Your task to perform on an android device: Add razer blade to the cart on walmart Image 0: 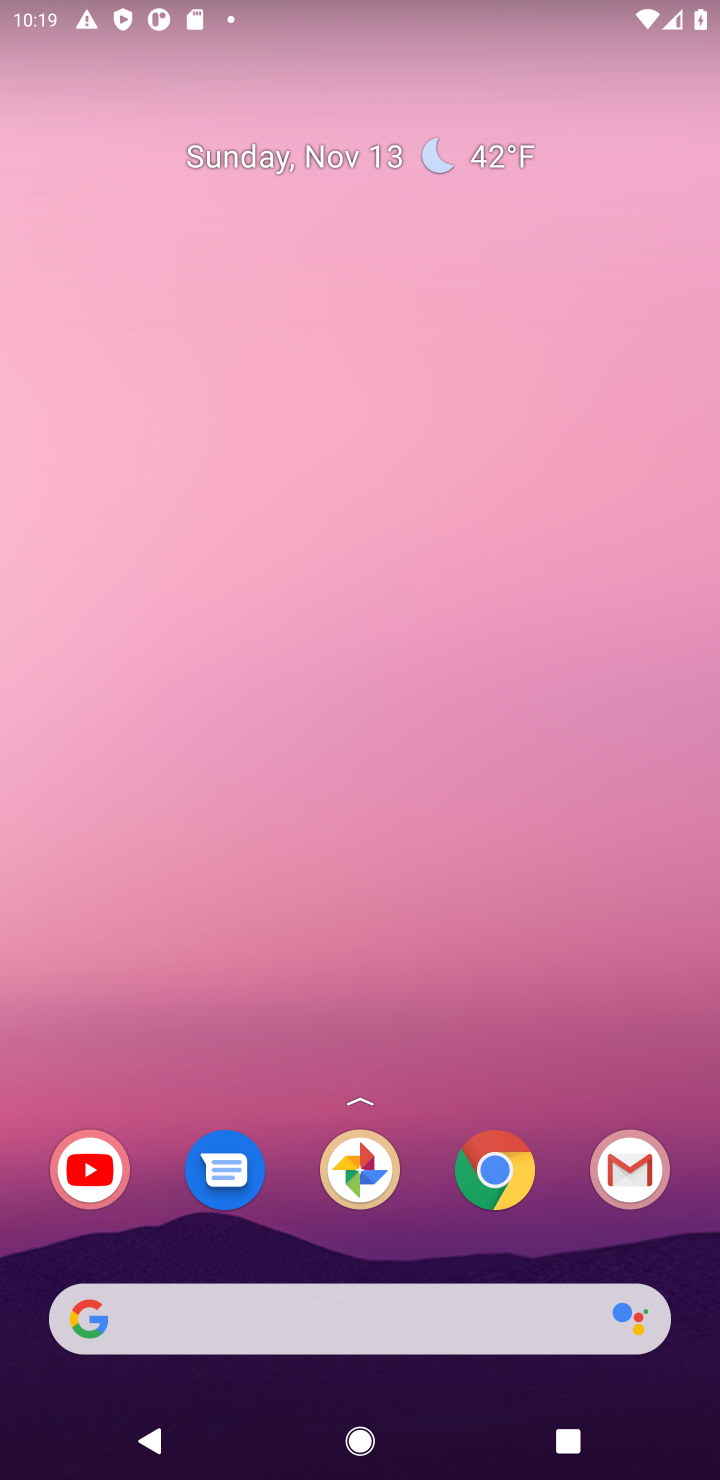
Step 0: drag from (486, 1007) to (642, 7)
Your task to perform on an android device: Add razer blade to the cart on walmart Image 1: 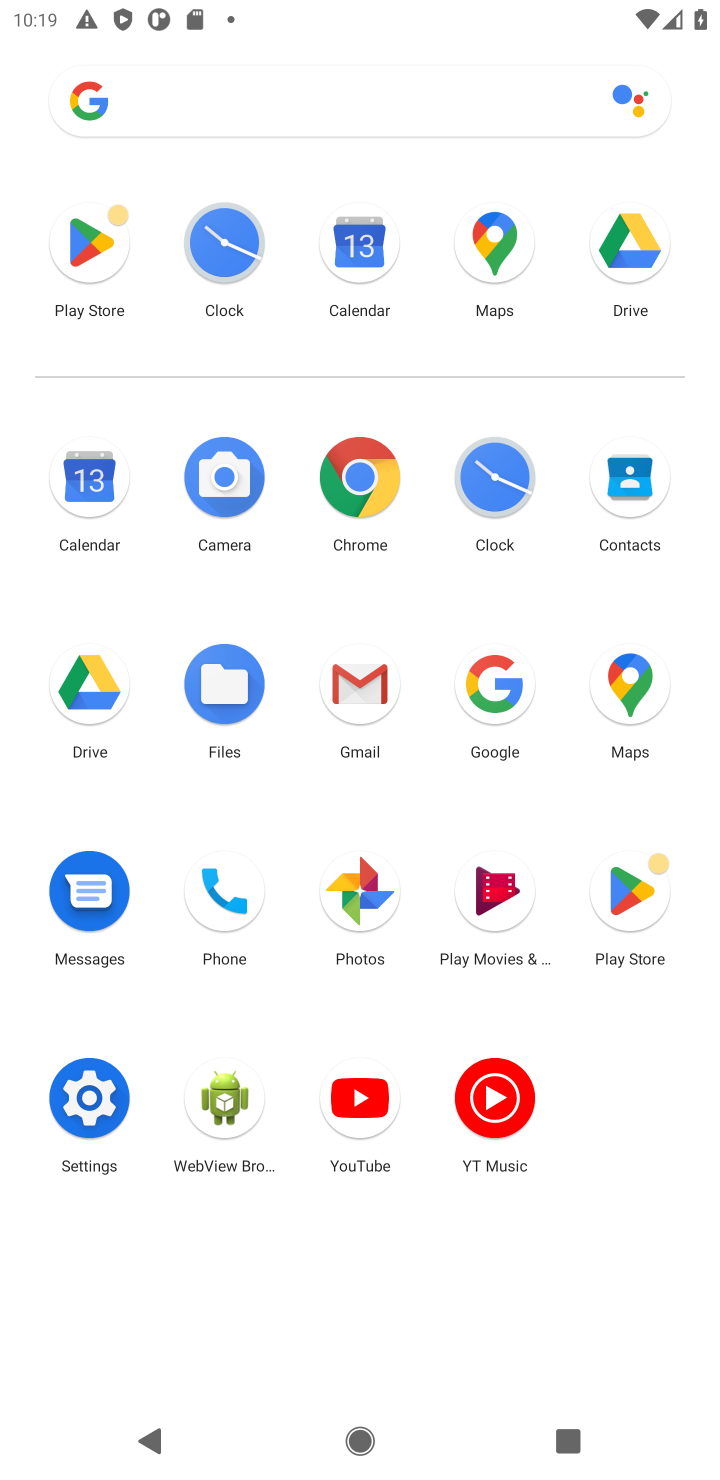
Step 1: click (373, 486)
Your task to perform on an android device: Add razer blade to the cart on walmart Image 2: 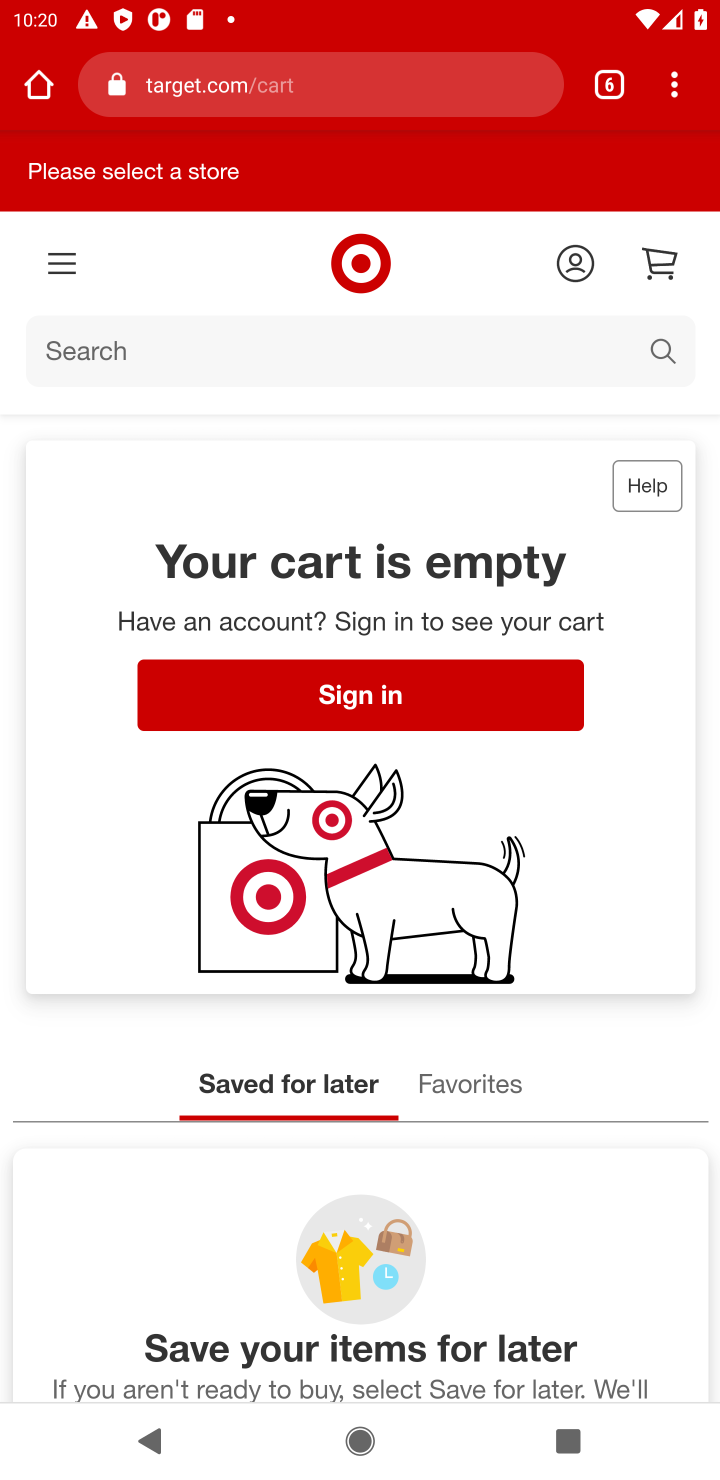
Step 2: click (260, 82)
Your task to perform on an android device: Add razer blade to the cart on walmart Image 3: 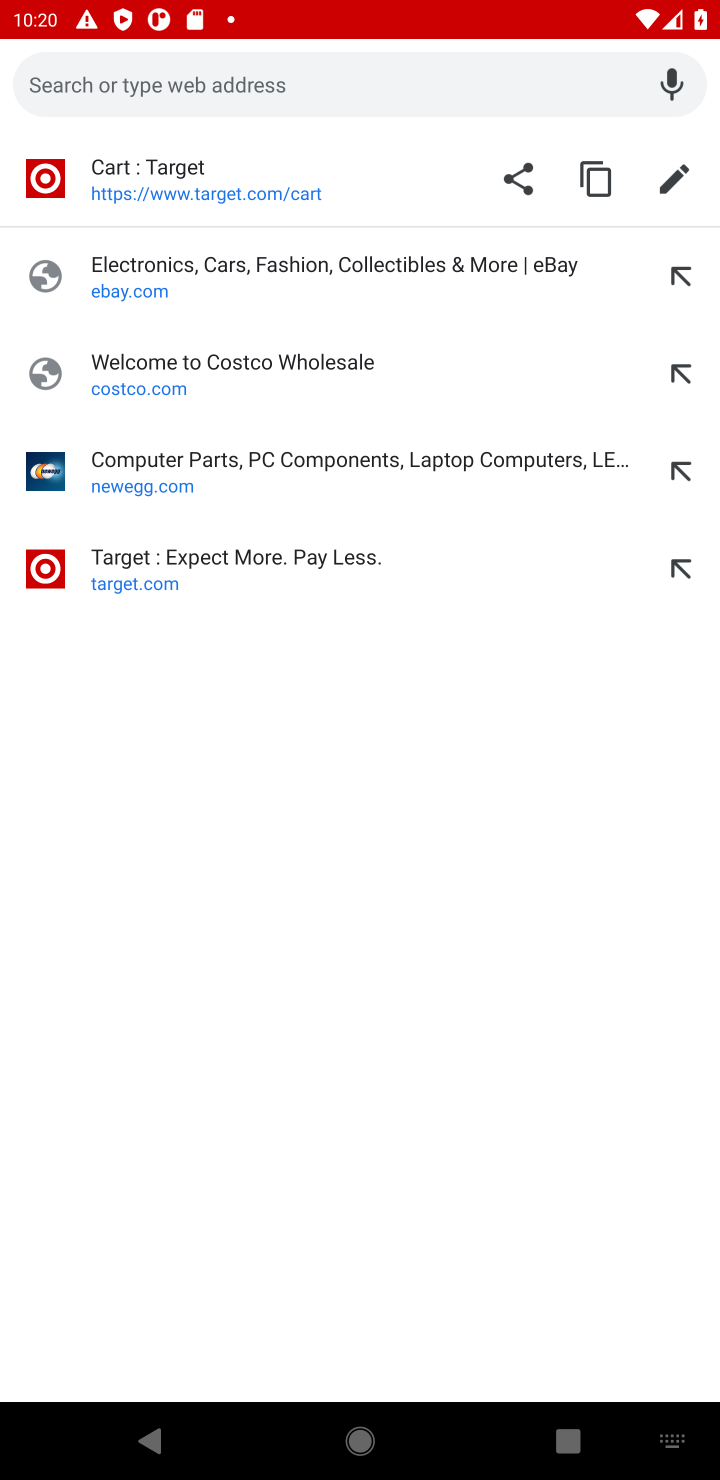
Step 3: type "walmart"
Your task to perform on an android device: Add razer blade to the cart on walmart Image 4: 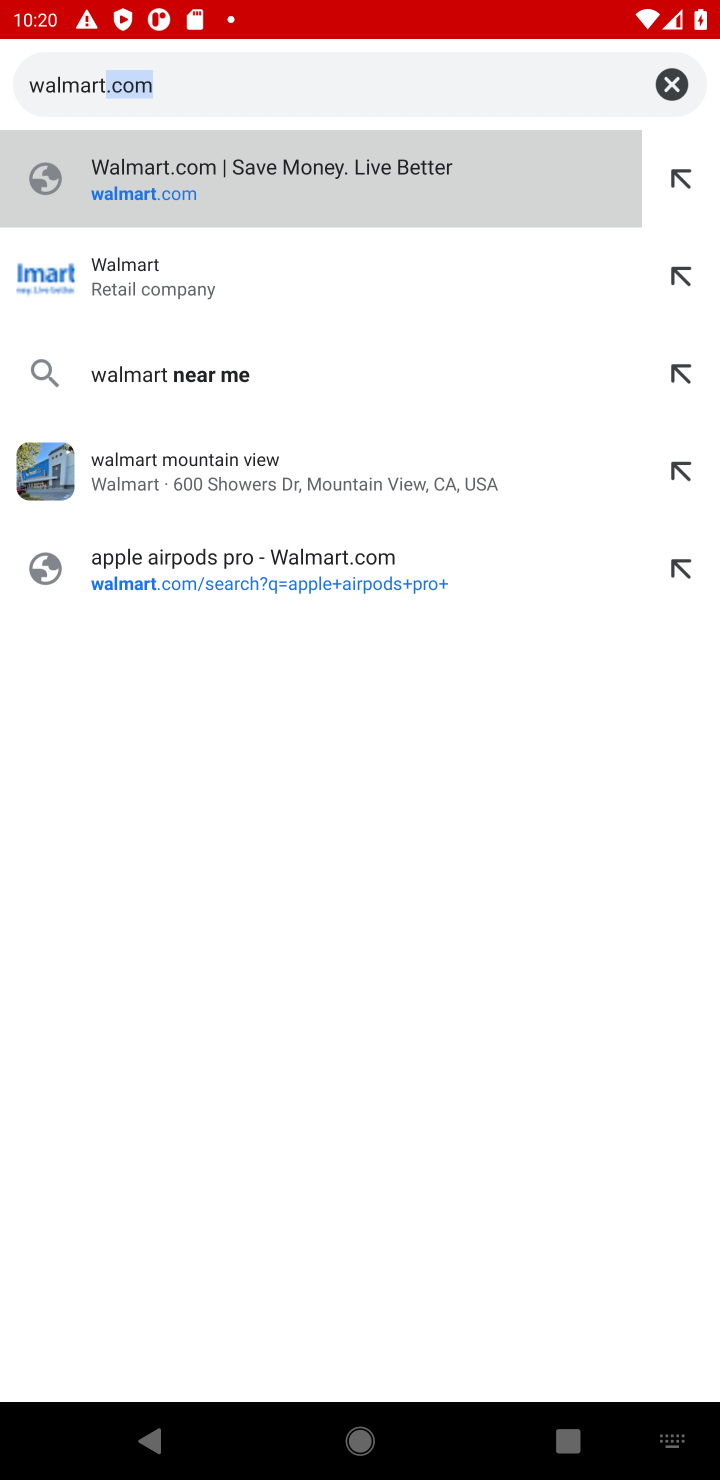
Step 4: press enter
Your task to perform on an android device: Add razer blade to the cart on walmart Image 5: 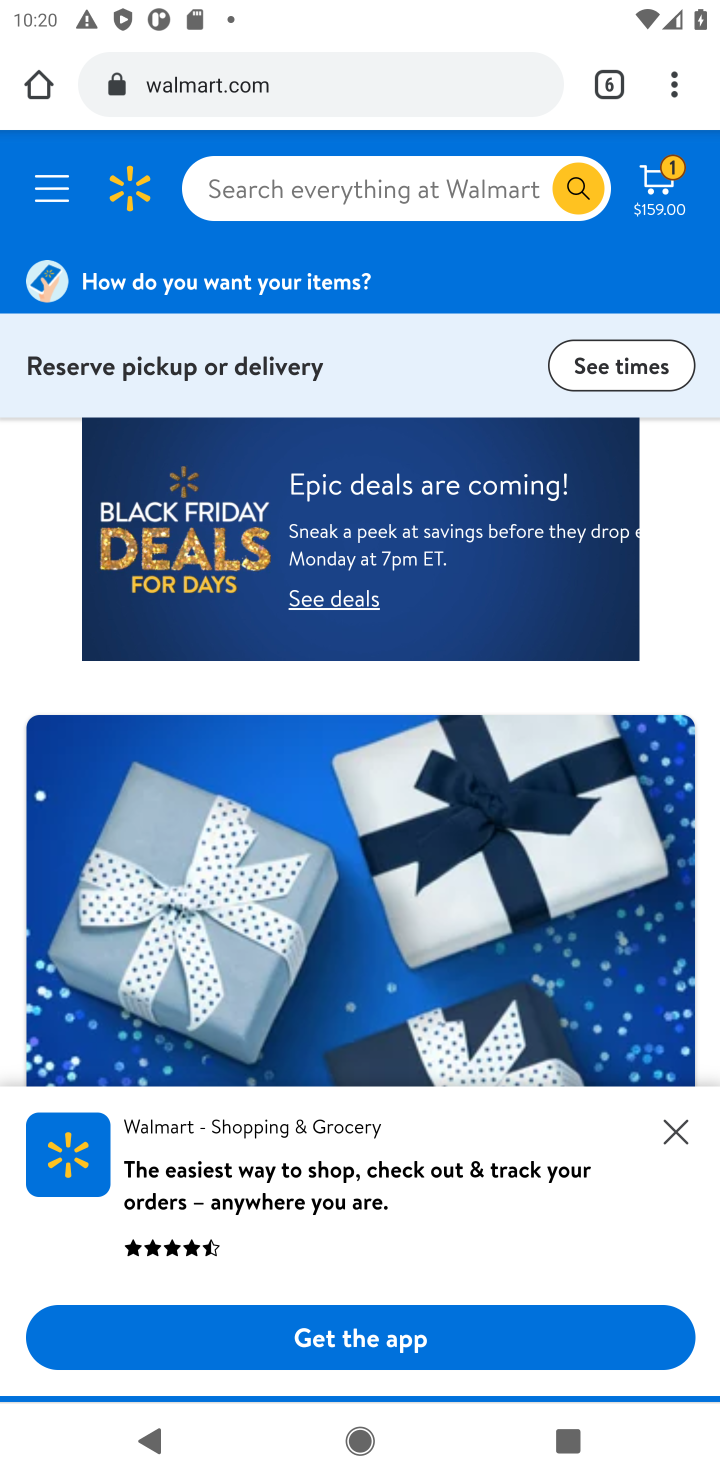
Step 5: click (344, 201)
Your task to perform on an android device: Add razer blade to the cart on walmart Image 6: 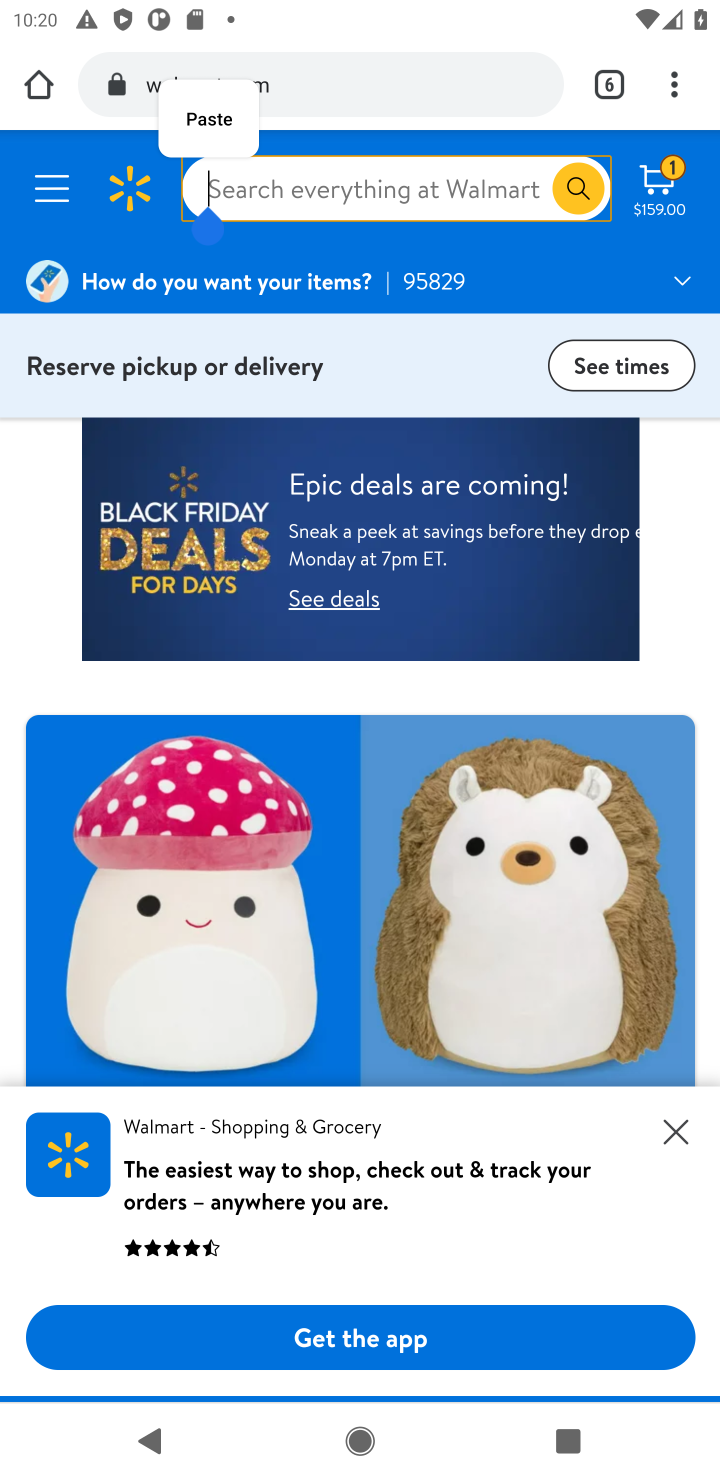
Step 6: click (218, 114)
Your task to perform on an android device: Add razer blade to the cart on walmart Image 7: 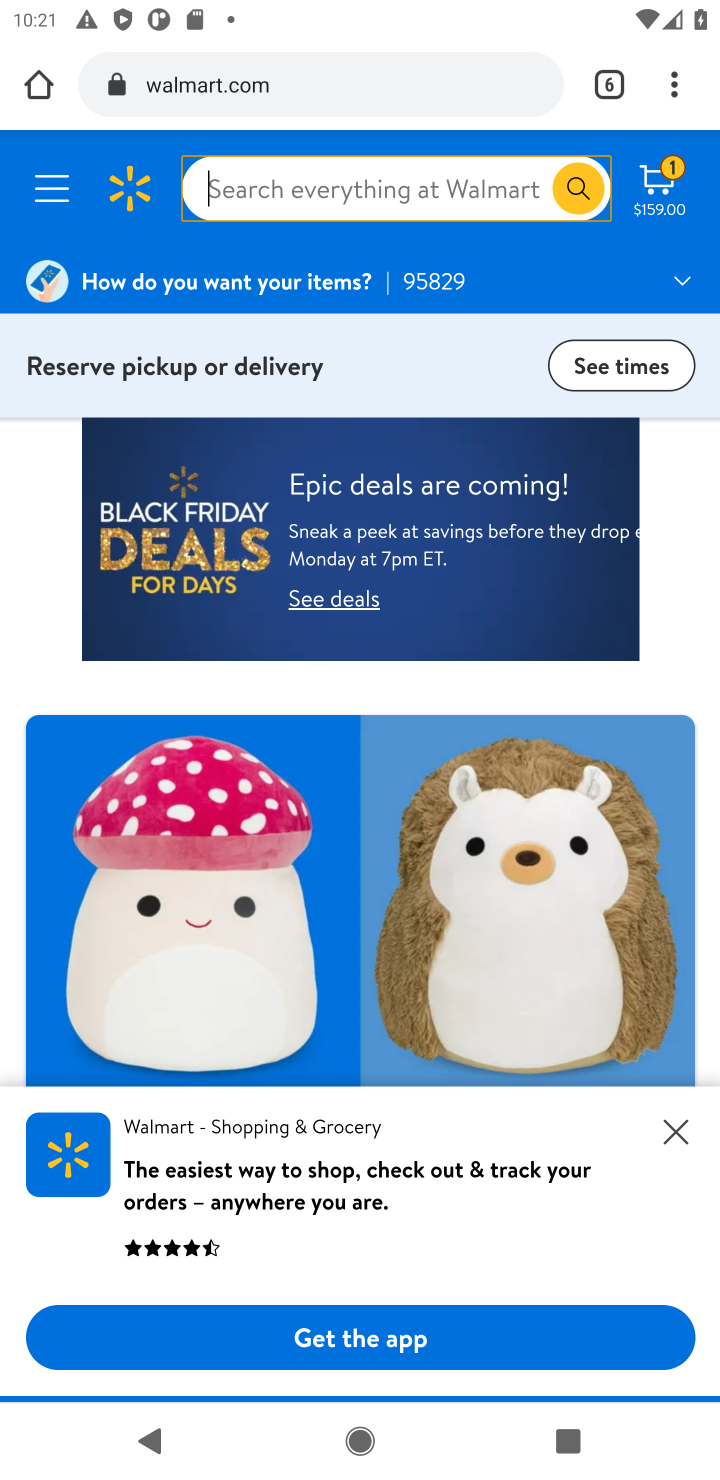
Step 7: press enter
Your task to perform on an android device: Add razer blade to the cart on walmart Image 8: 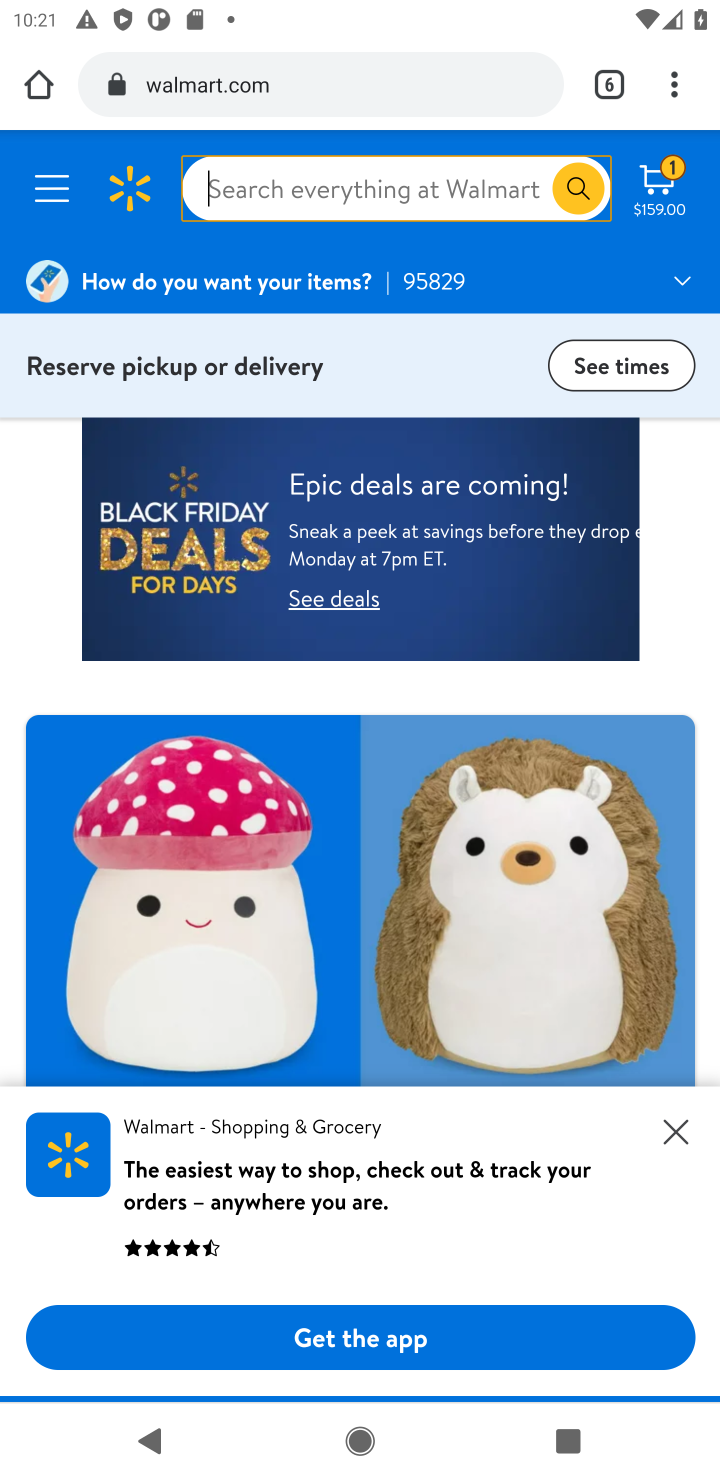
Step 8: type "Add razer blade "
Your task to perform on an android device: Add razer blade to the cart on walmart Image 9: 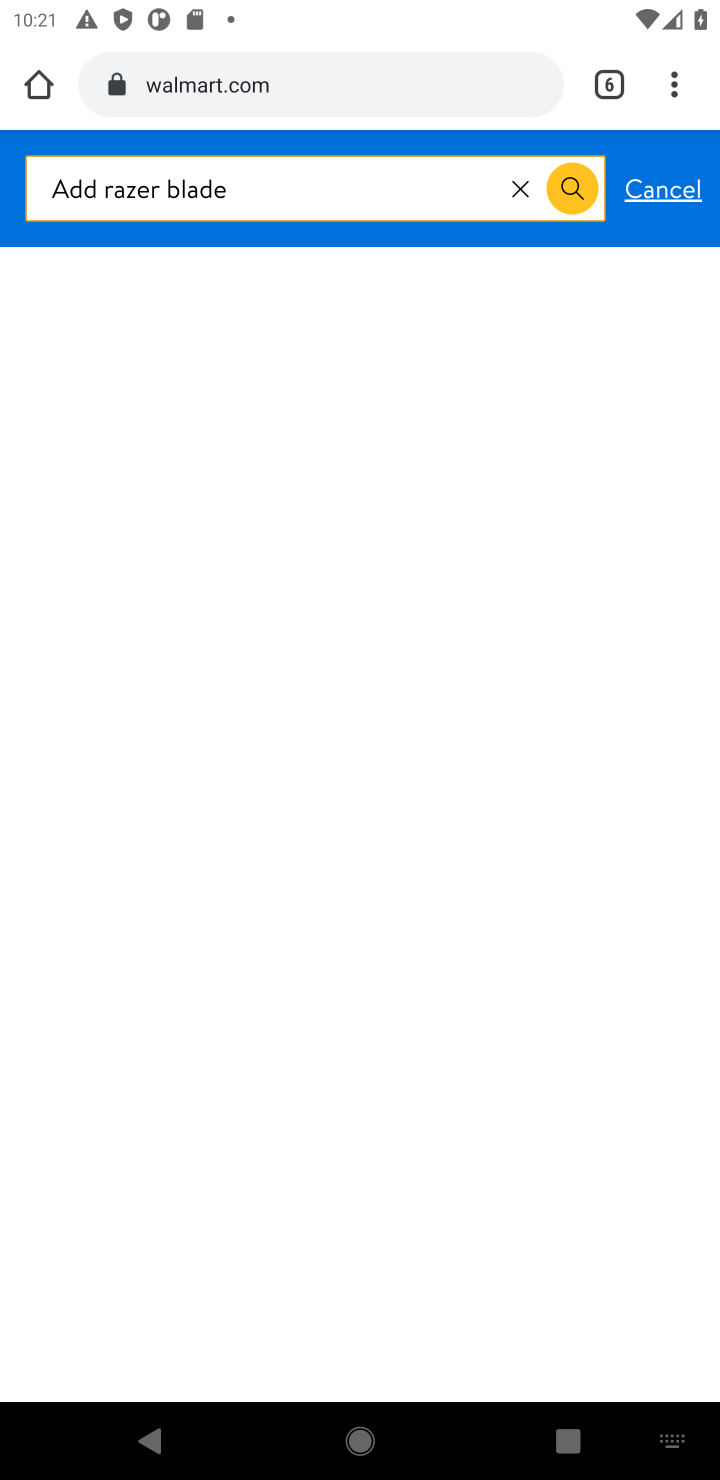
Step 9: press enter
Your task to perform on an android device: Add razer blade to the cart on walmart Image 10: 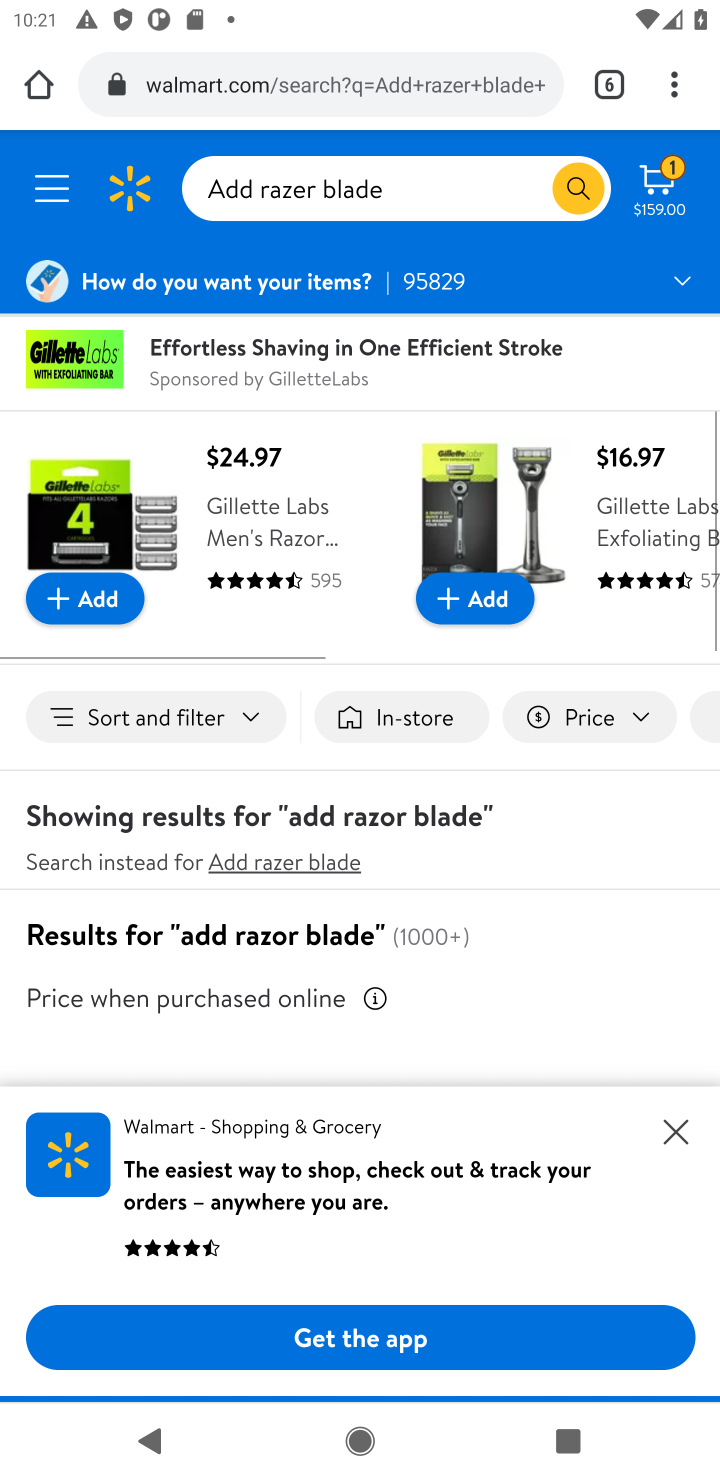
Step 10: drag from (504, 739) to (527, 237)
Your task to perform on an android device: Add razer blade to the cart on walmart Image 11: 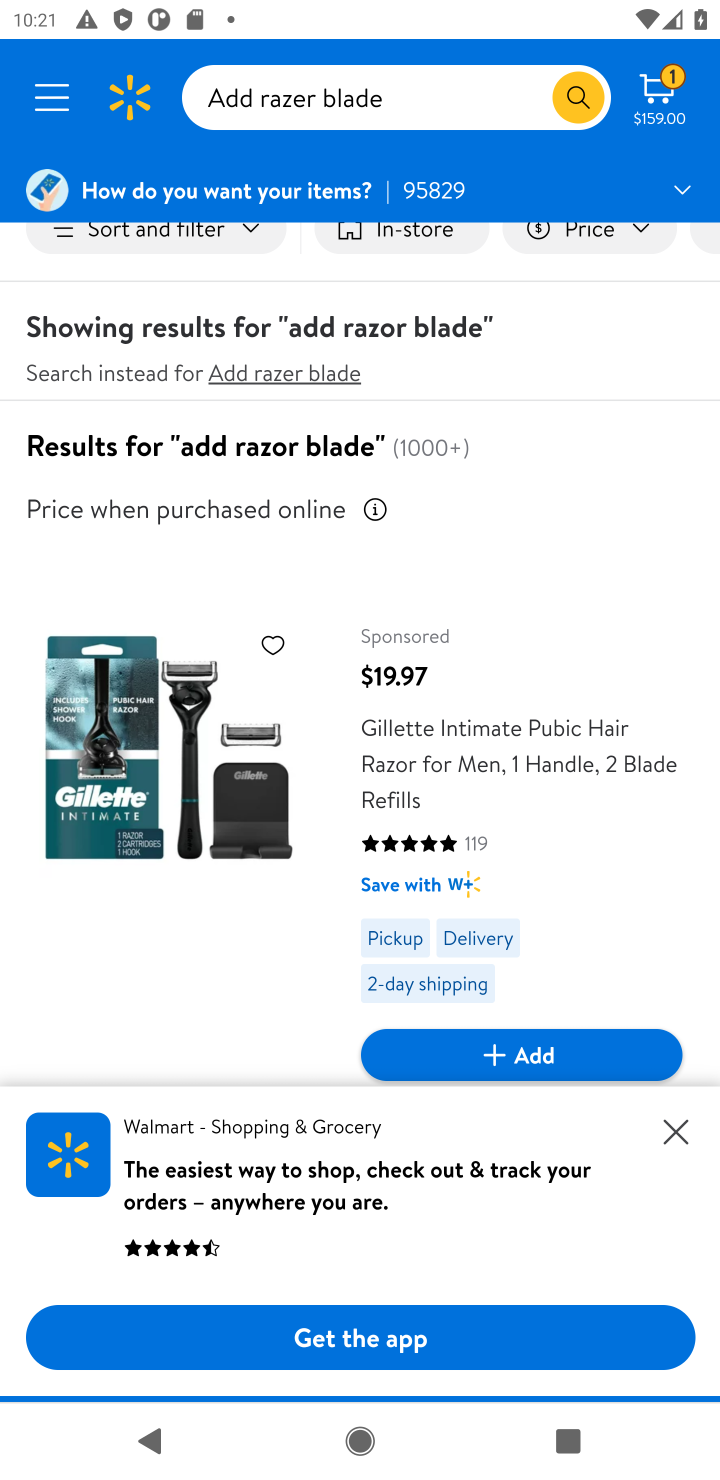
Step 11: click (546, 1050)
Your task to perform on an android device: Add razer blade to the cart on walmart Image 12: 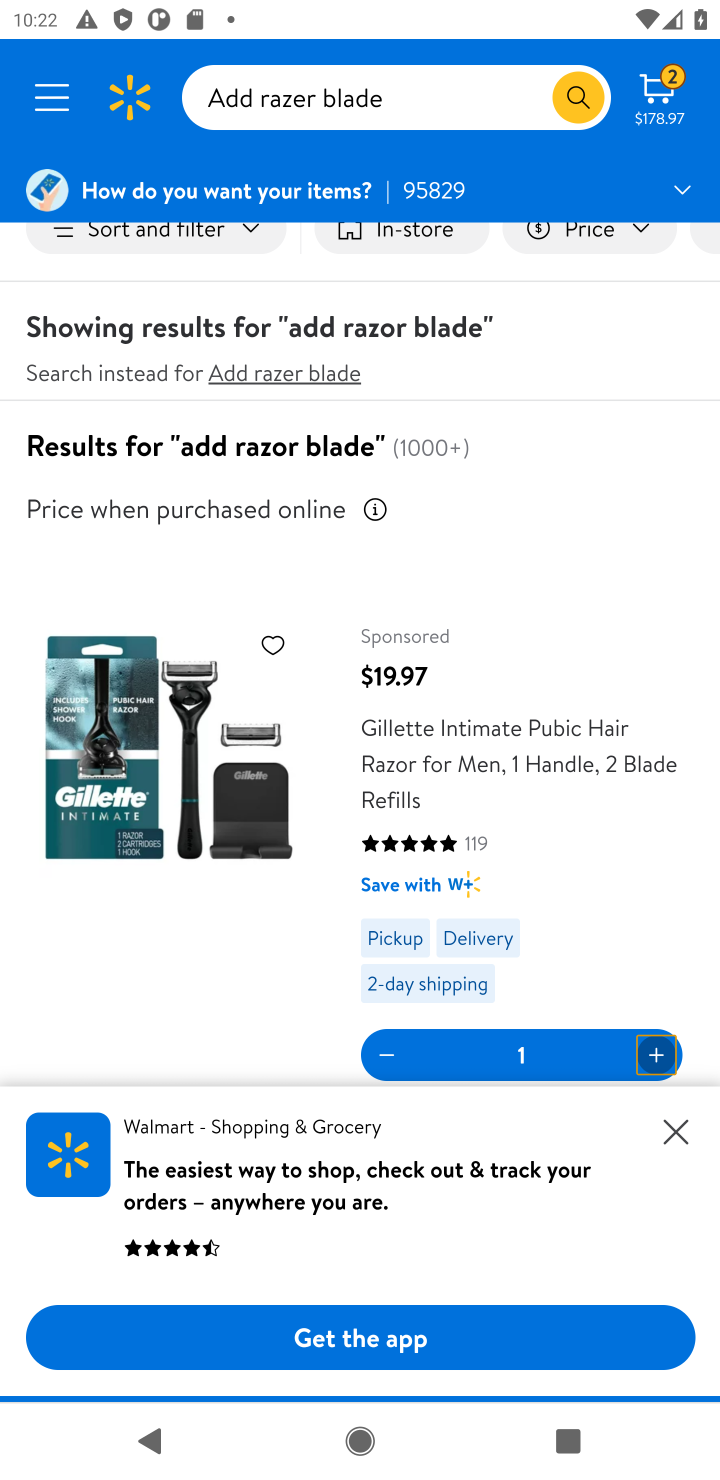
Step 12: task complete